Your task to perform on an android device: Open calendar and show me the second week of next month Image 0: 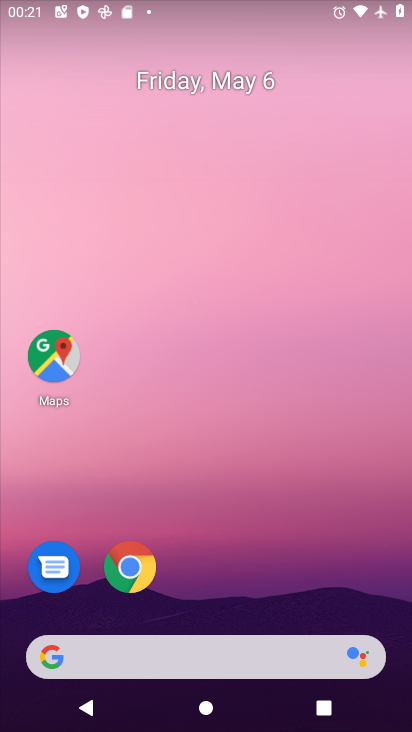
Step 0: drag from (218, 616) to (201, 175)
Your task to perform on an android device: Open calendar and show me the second week of next month Image 1: 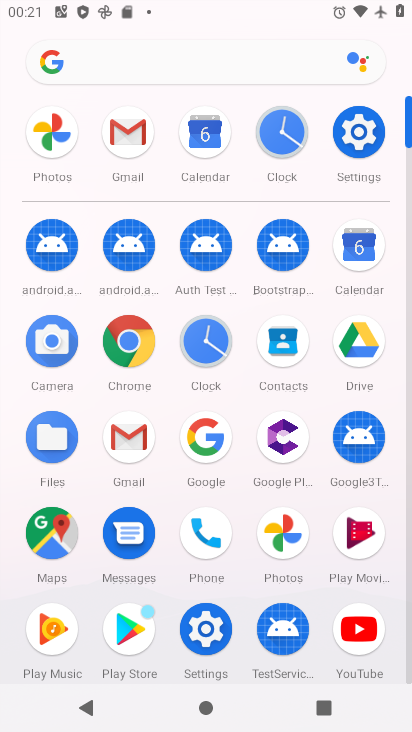
Step 1: click (356, 238)
Your task to perform on an android device: Open calendar and show me the second week of next month Image 2: 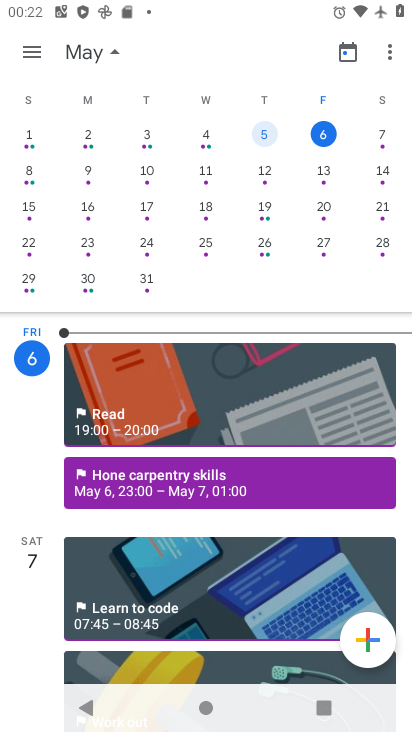
Step 2: drag from (341, 187) to (22, 165)
Your task to perform on an android device: Open calendar and show me the second week of next month Image 3: 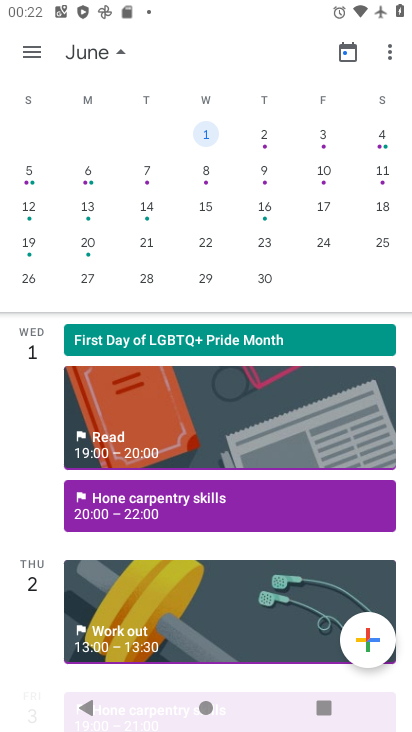
Step 3: click (22, 165)
Your task to perform on an android device: Open calendar and show me the second week of next month Image 4: 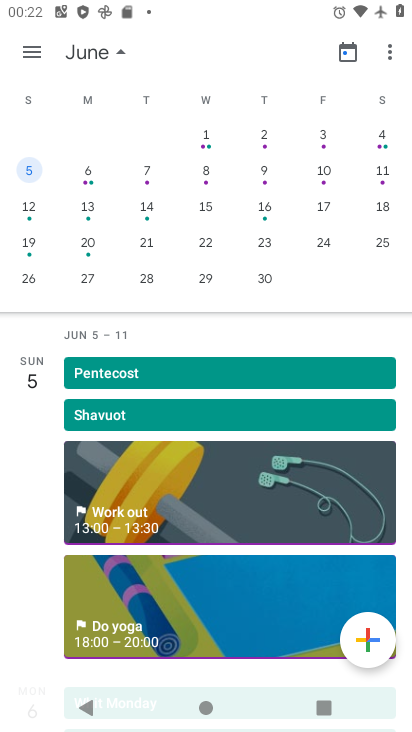
Step 4: click (83, 176)
Your task to perform on an android device: Open calendar and show me the second week of next month Image 5: 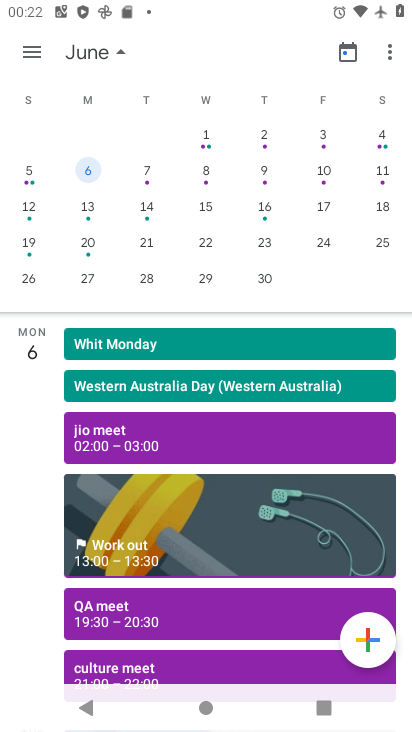
Step 5: task complete